Your task to perform on an android device: allow cookies in the chrome app Image 0: 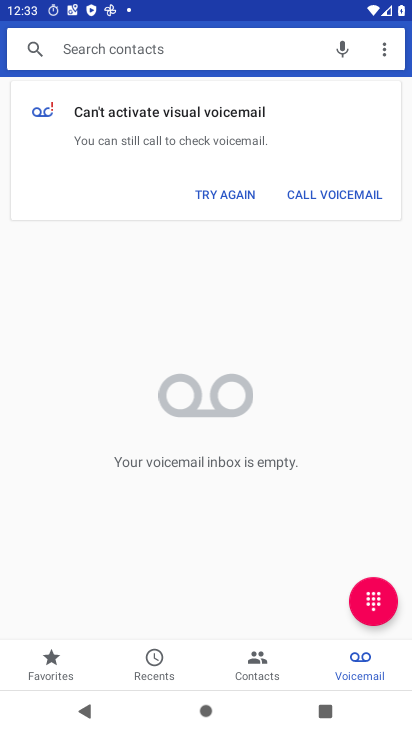
Step 0: press home button
Your task to perform on an android device: allow cookies in the chrome app Image 1: 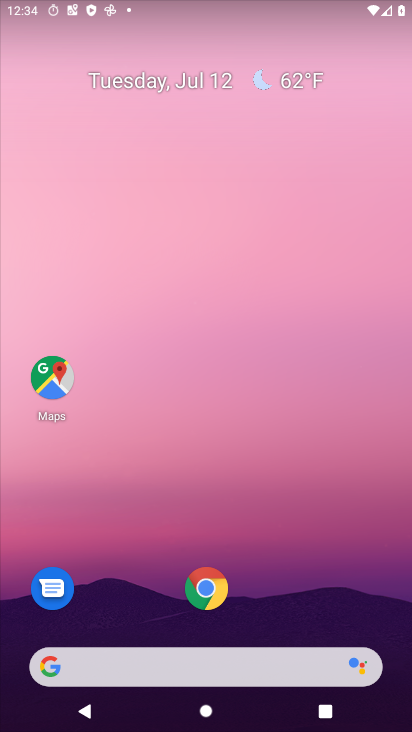
Step 1: click (208, 597)
Your task to perform on an android device: allow cookies in the chrome app Image 2: 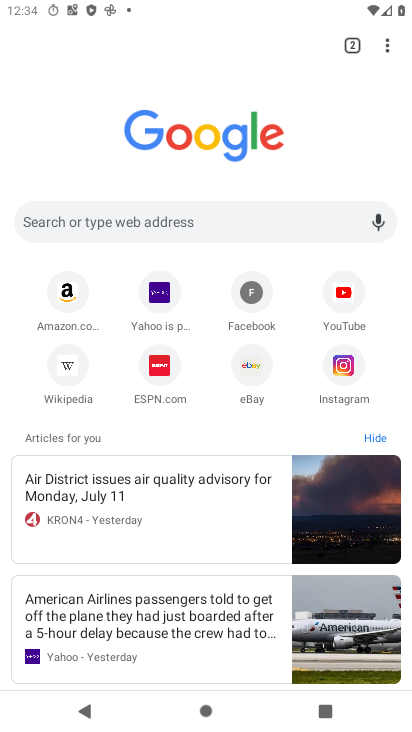
Step 2: click (389, 42)
Your task to perform on an android device: allow cookies in the chrome app Image 3: 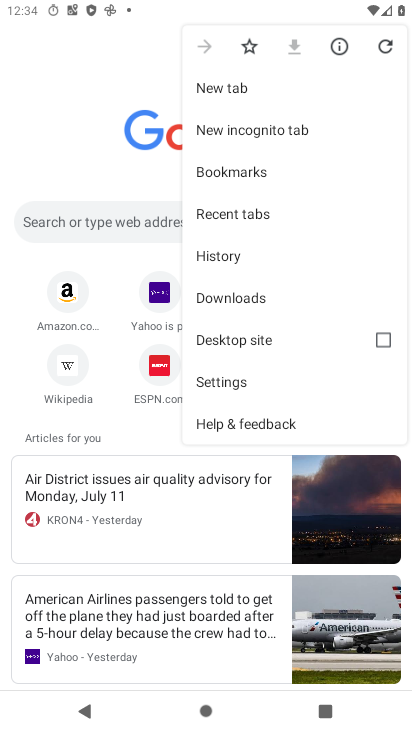
Step 3: click (226, 381)
Your task to perform on an android device: allow cookies in the chrome app Image 4: 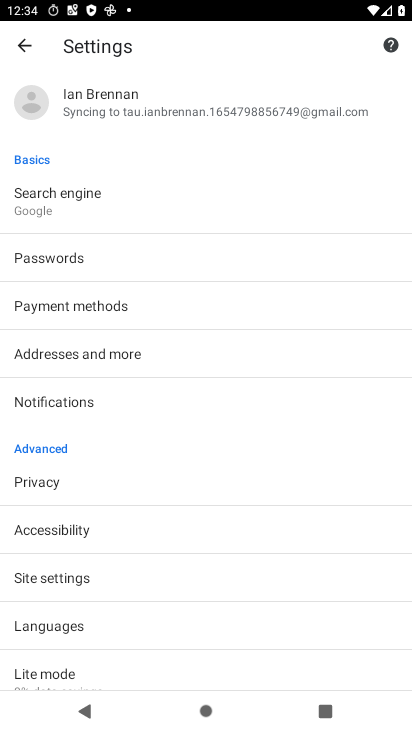
Step 4: click (65, 583)
Your task to perform on an android device: allow cookies in the chrome app Image 5: 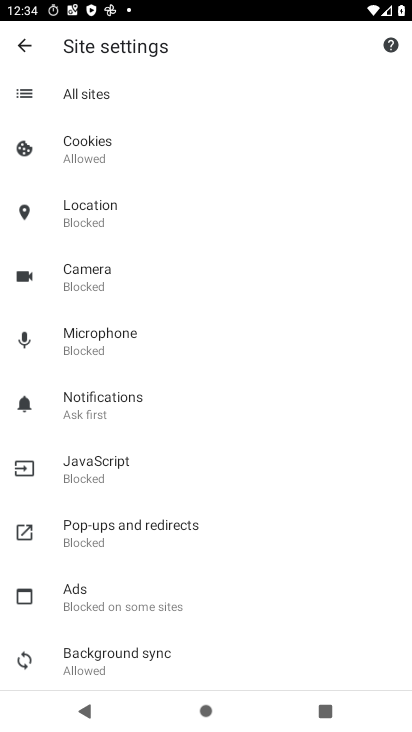
Step 5: click (114, 146)
Your task to perform on an android device: allow cookies in the chrome app Image 6: 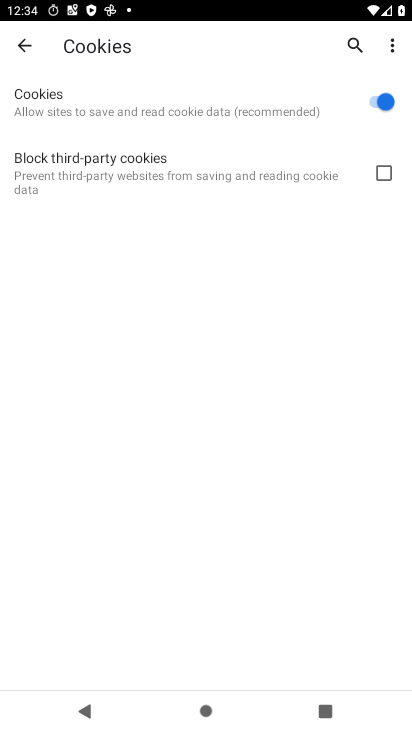
Step 6: task complete